Your task to perform on an android device: Open Reddit.com Image 0: 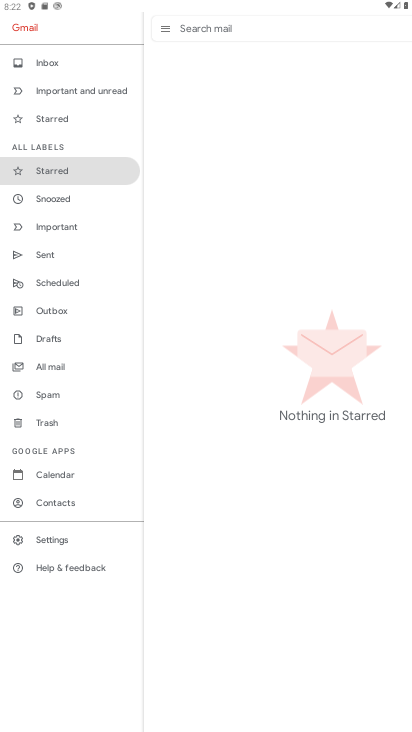
Step 0: press home button
Your task to perform on an android device: Open Reddit.com Image 1: 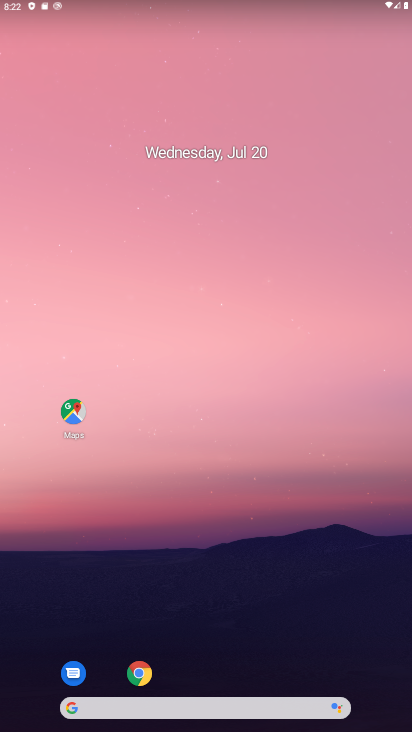
Step 1: drag from (246, 713) to (237, 314)
Your task to perform on an android device: Open Reddit.com Image 2: 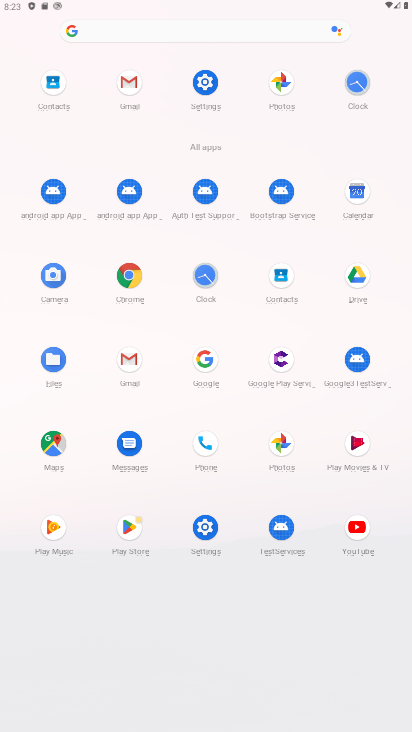
Step 2: click (123, 272)
Your task to perform on an android device: Open Reddit.com Image 3: 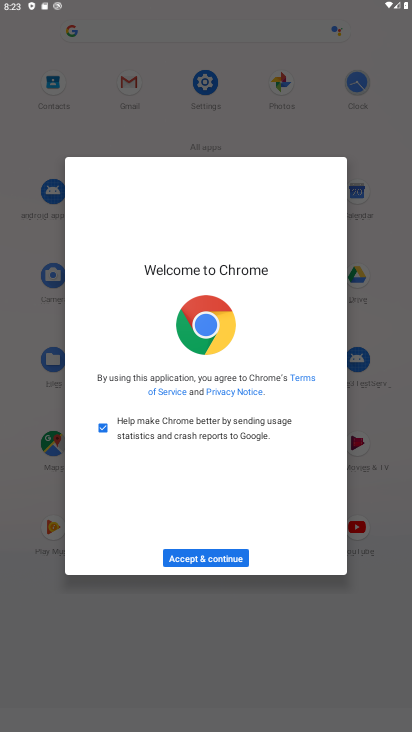
Step 3: click (229, 554)
Your task to perform on an android device: Open Reddit.com Image 4: 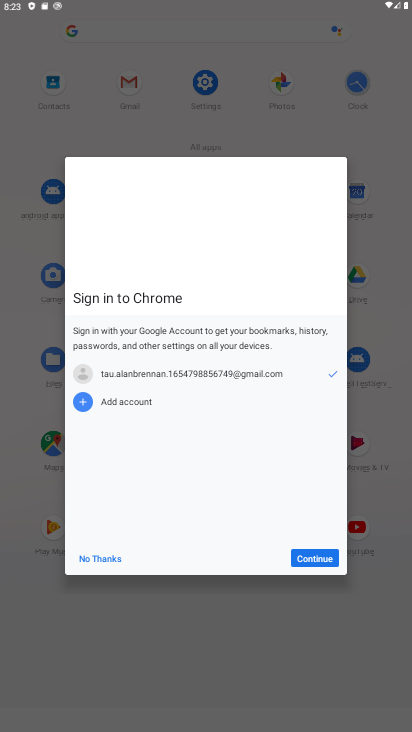
Step 4: click (307, 559)
Your task to perform on an android device: Open Reddit.com Image 5: 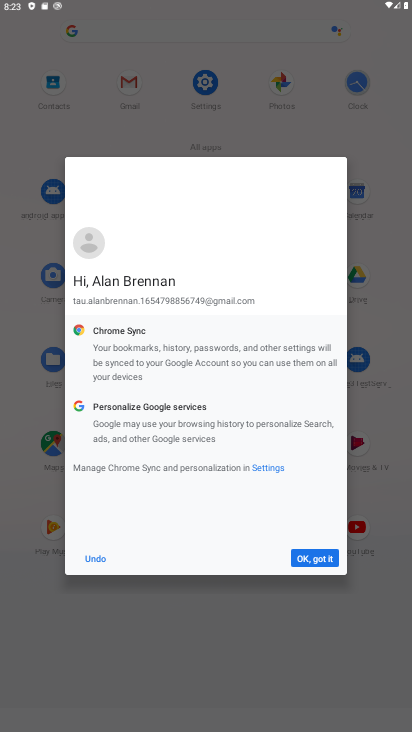
Step 5: click (307, 559)
Your task to perform on an android device: Open Reddit.com Image 6: 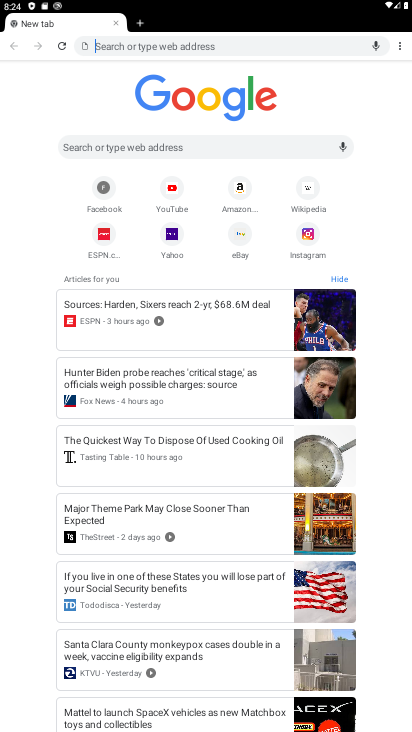
Step 6: click (251, 143)
Your task to perform on an android device: Open Reddit.com Image 7: 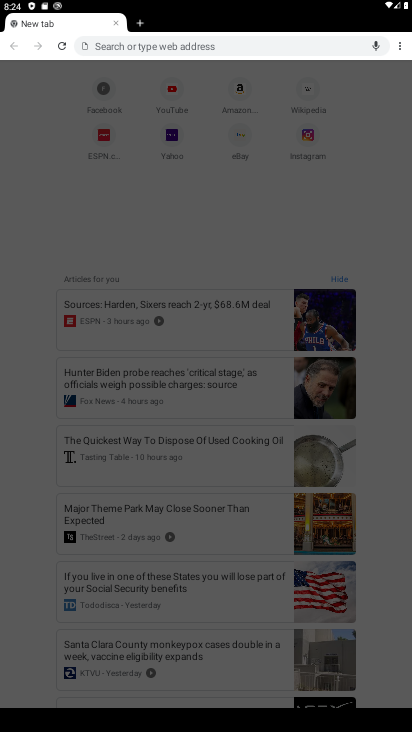
Step 7: type "Reddit .com"
Your task to perform on an android device: Open Reddit.com Image 8: 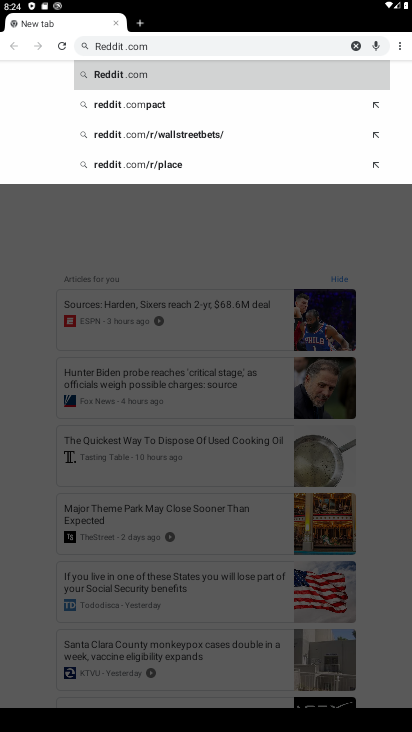
Step 8: click (132, 73)
Your task to perform on an android device: Open Reddit.com Image 9: 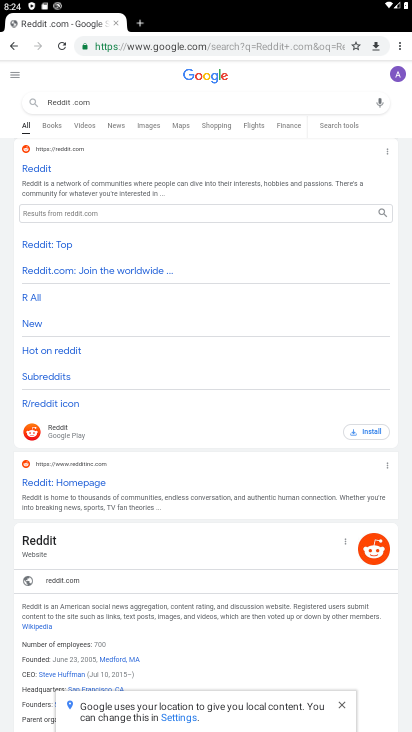
Step 9: click (33, 165)
Your task to perform on an android device: Open Reddit.com Image 10: 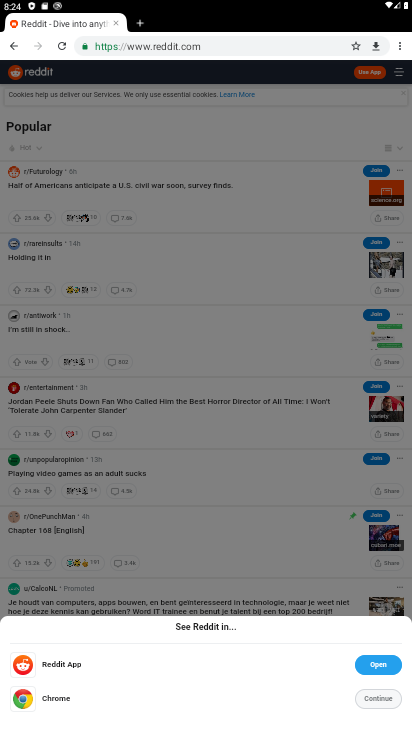
Step 10: task complete